Your task to perform on an android device: Go to Wikipedia Image 0: 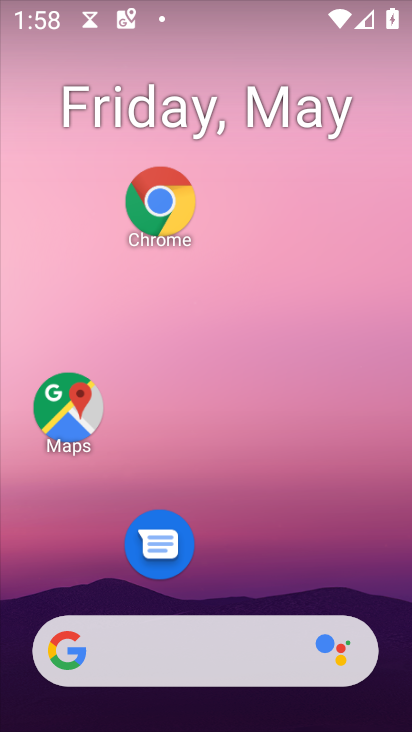
Step 0: click (386, 161)
Your task to perform on an android device: Go to Wikipedia Image 1: 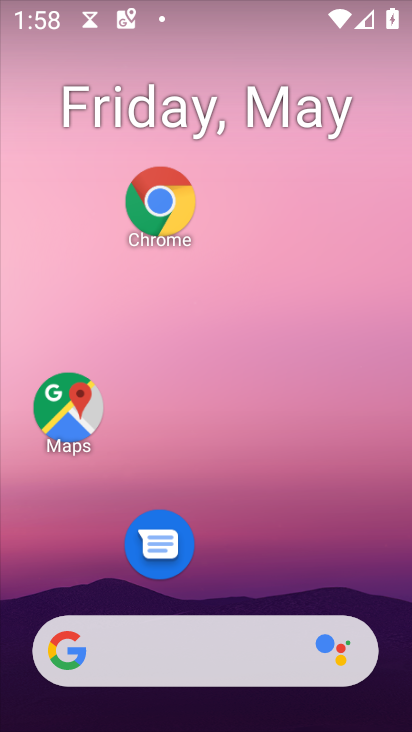
Step 1: drag from (0, 314) to (41, 460)
Your task to perform on an android device: Go to Wikipedia Image 2: 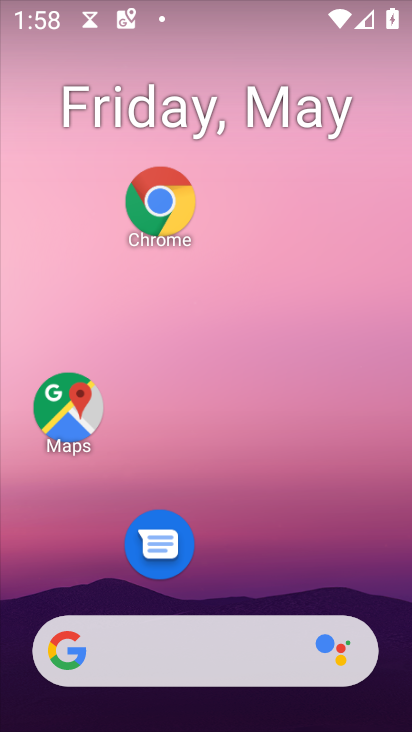
Step 2: drag from (257, 482) to (269, 121)
Your task to perform on an android device: Go to Wikipedia Image 3: 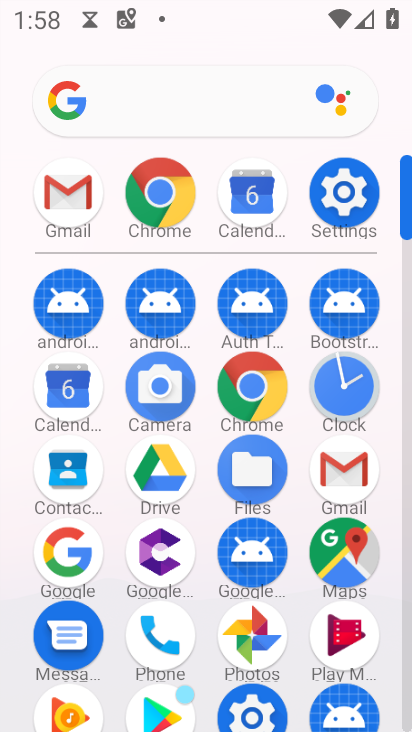
Step 3: click (173, 217)
Your task to perform on an android device: Go to Wikipedia Image 4: 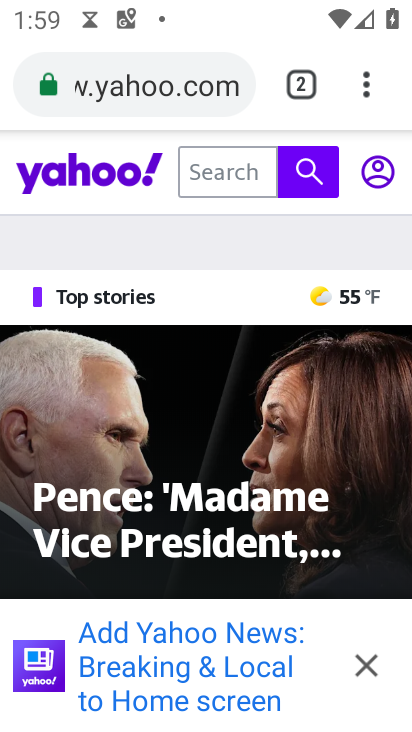
Step 4: click (293, 96)
Your task to perform on an android device: Go to Wikipedia Image 5: 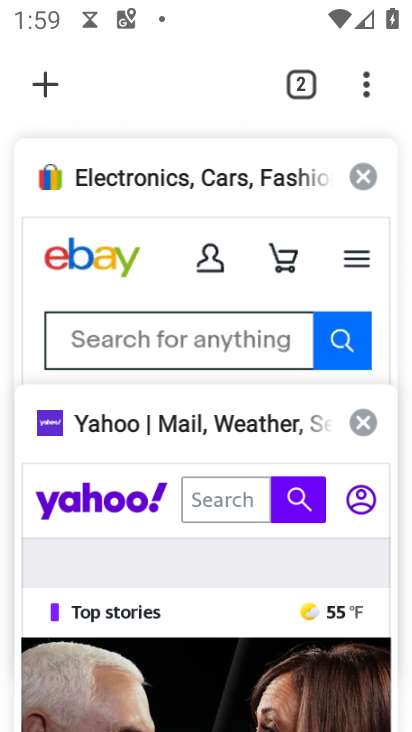
Step 5: click (48, 83)
Your task to perform on an android device: Go to Wikipedia Image 6: 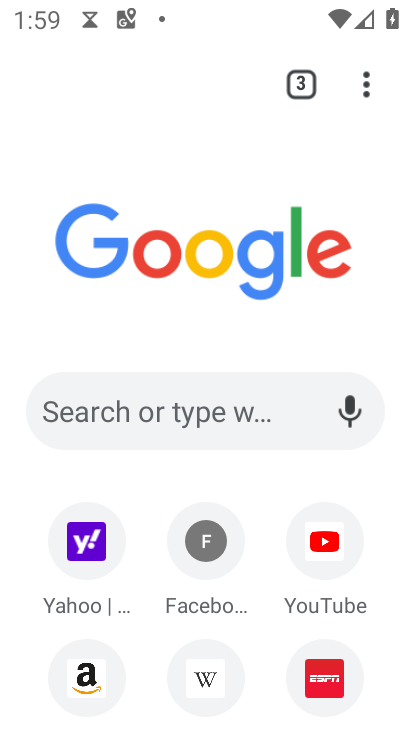
Step 6: drag from (173, 480) to (186, 215)
Your task to perform on an android device: Go to Wikipedia Image 7: 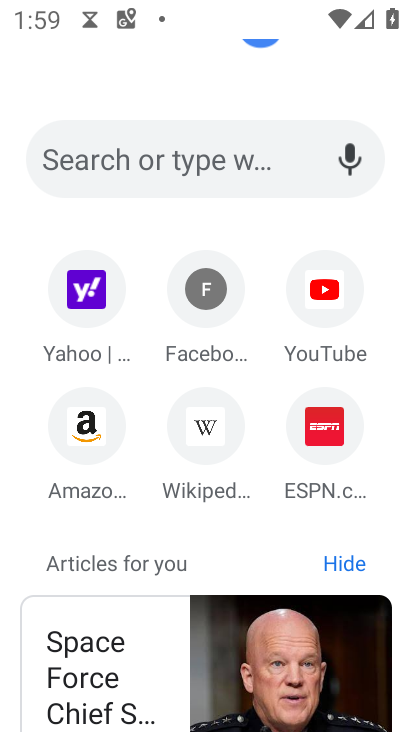
Step 7: click (221, 436)
Your task to perform on an android device: Go to Wikipedia Image 8: 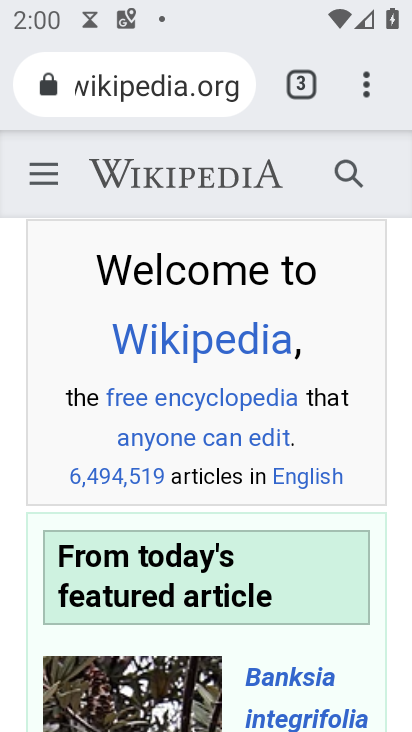
Step 8: task complete